Your task to perform on an android device: Open the stopwatch Image 0: 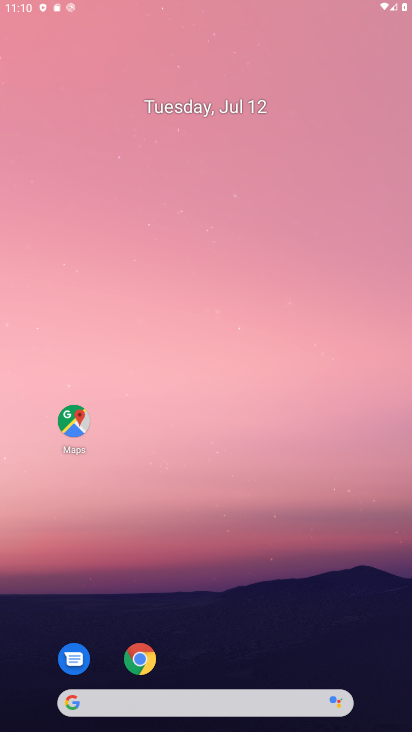
Step 0: drag from (288, 645) to (233, 196)
Your task to perform on an android device: Open the stopwatch Image 1: 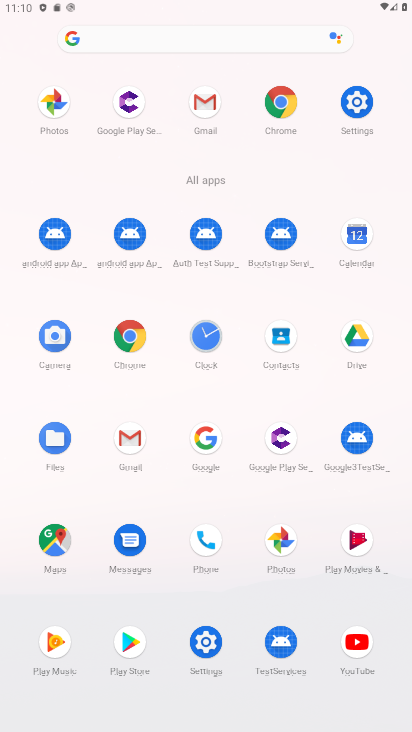
Step 1: click (215, 350)
Your task to perform on an android device: Open the stopwatch Image 2: 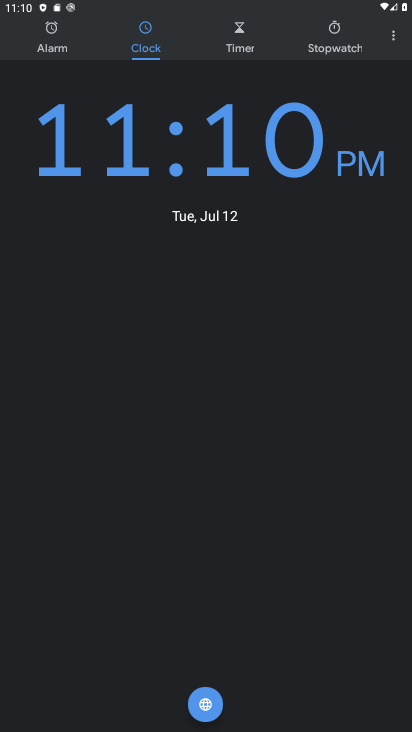
Step 2: click (338, 45)
Your task to perform on an android device: Open the stopwatch Image 3: 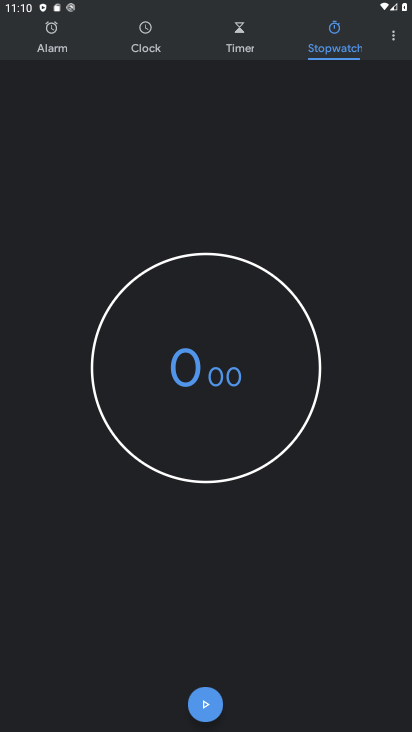
Step 3: task complete